Your task to perform on an android device: Go to CNN.com Image 0: 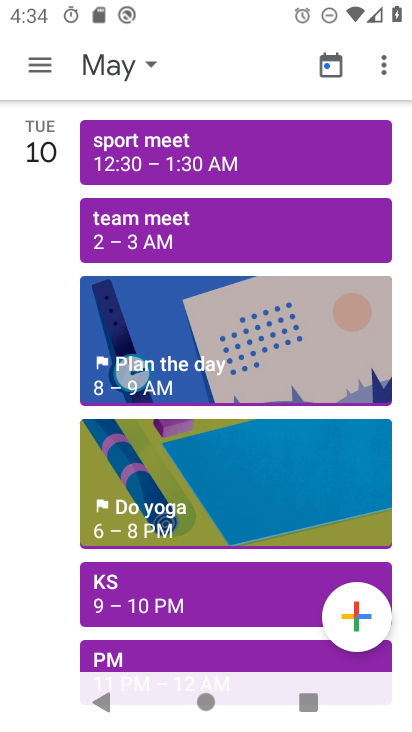
Step 0: press home button
Your task to perform on an android device: Go to CNN.com Image 1: 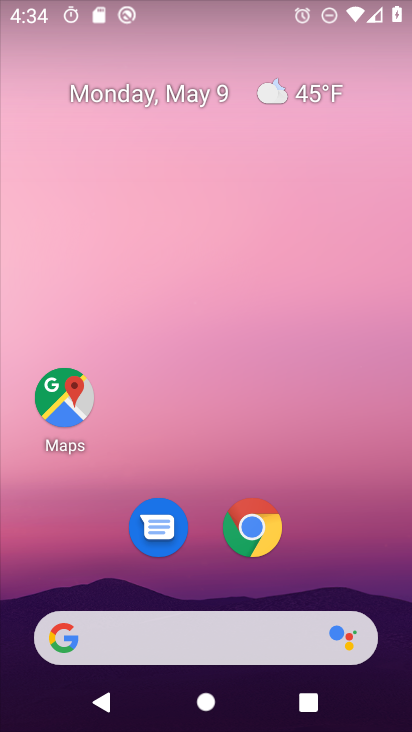
Step 1: click (267, 530)
Your task to perform on an android device: Go to CNN.com Image 2: 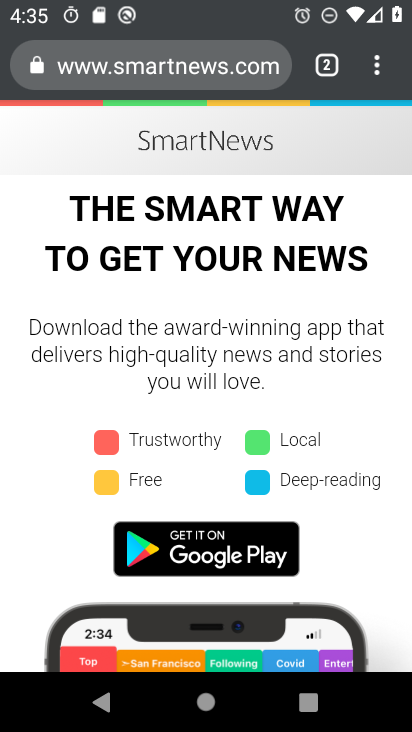
Step 2: click (132, 80)
Your task to perform on an android device: Go to CNN.com Image 3: 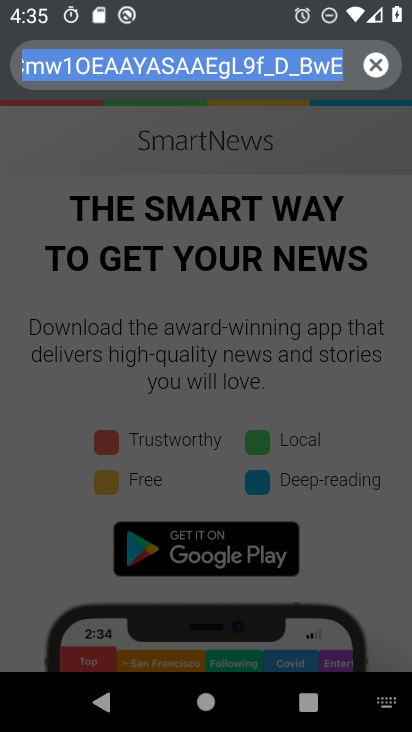
Step 3: type "cnn.com"
Your task to perform on an android device: Go to CNN.com Image 4: 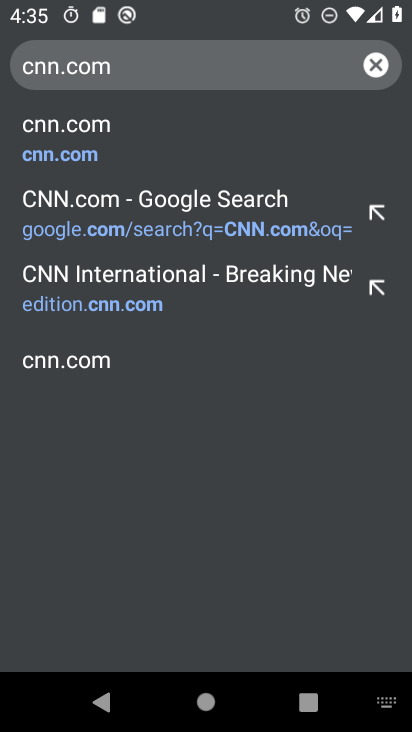
Step 4: click (82, 149)
Your task to perform on an android device: Go to CNN.com Image 5: 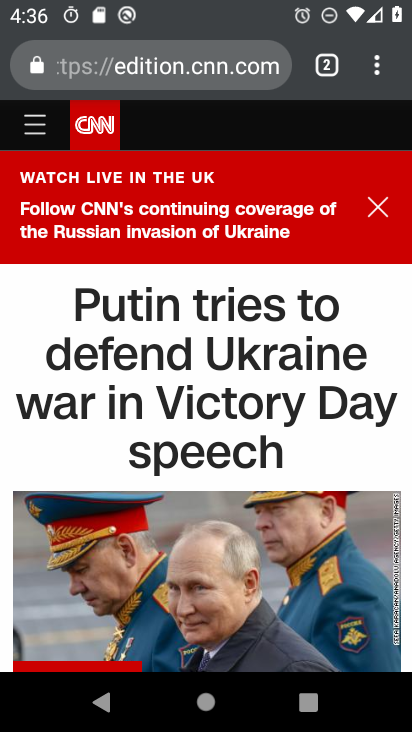
Step 5: task complete